Your task to perform on an android device: find snoozed emails in the gmail app Image 0: 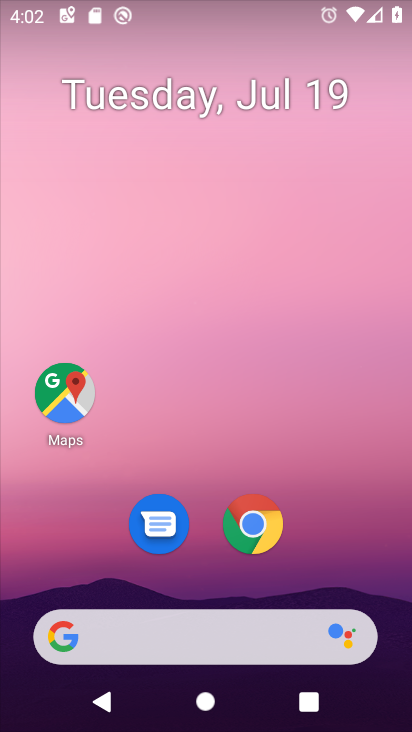
Step 0: drag from (321, 539) to (316, 42)
Your task to perform on an android device: find snoozed emails in the gmail app Image 1: 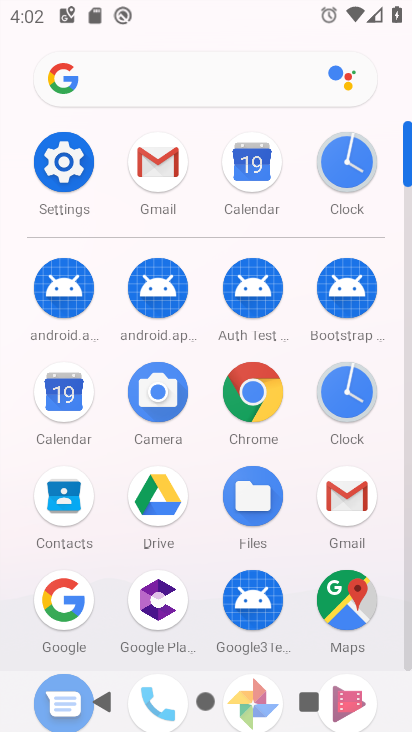
Step 1: click (162, 171)
Your task to perform on an android device: find snoozed emails in the gmail app Image 2: 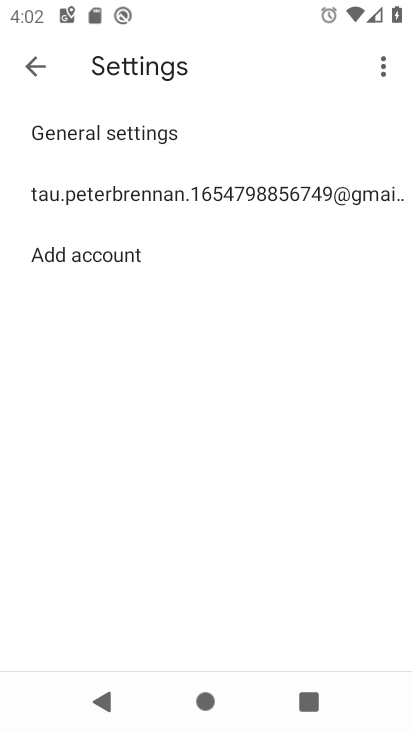
Step 2: click (32, 63)
Your task to perform on an android device: find snoozed emails in the gmail app Image 3: 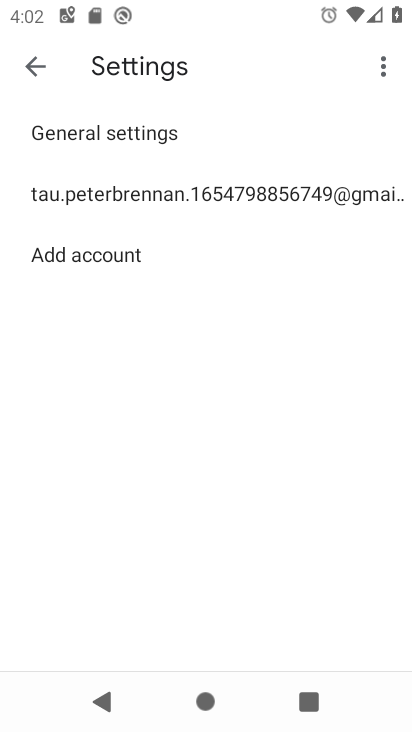
Step 3: click (30, 56)
Your task to perform on an android device: find snoozed emails in the gmail app Image 4: 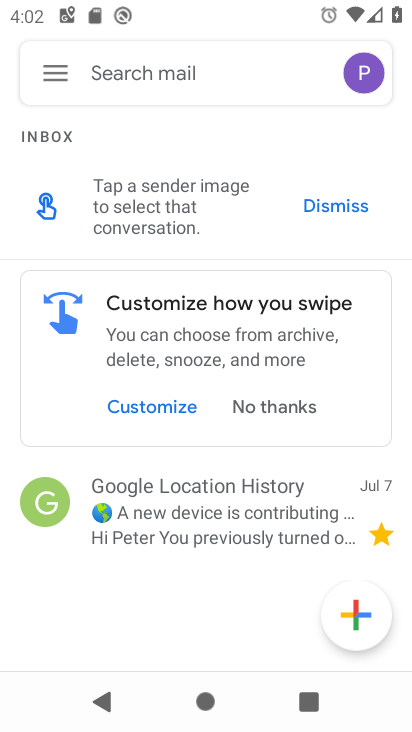
Step 4: click (55, 69)
Your task to perform on an android device: find snoozed emails in the gmail app Image 5: 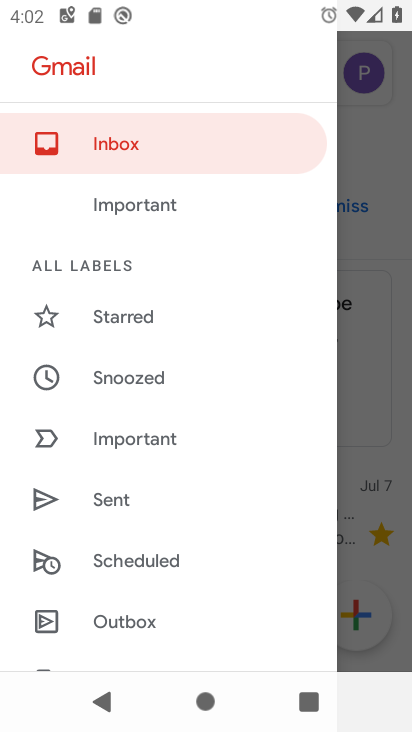
Step 5: click (164, 368)
Your task to perform on an android device: find snoozed emails in the gmail app Image 6: 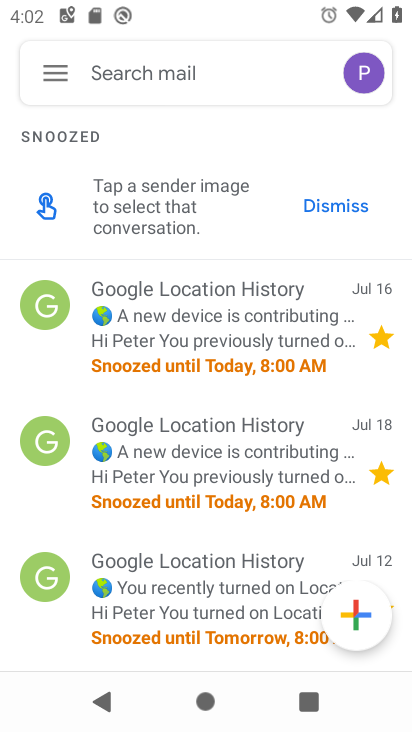
Step 6: task complete